Your task to perform on an android device: clear all cookies in the chrome app Image 0: 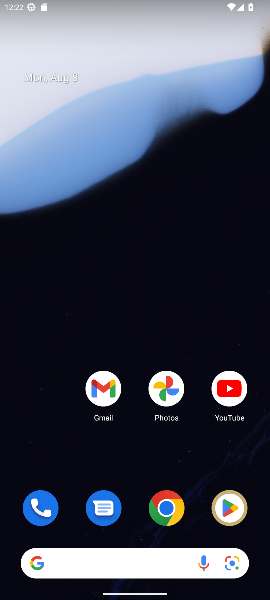
Step 0: click (180, 507)
Your task to perform on an android device: clear all cookies in the chrome app Image 1: 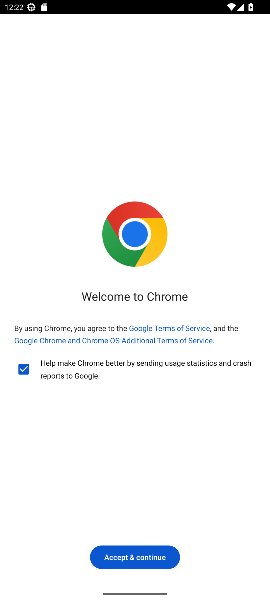
Step 1: click (153, 553)
Your task to perform on an android device: clear all cookies in the chrome app Image 2: 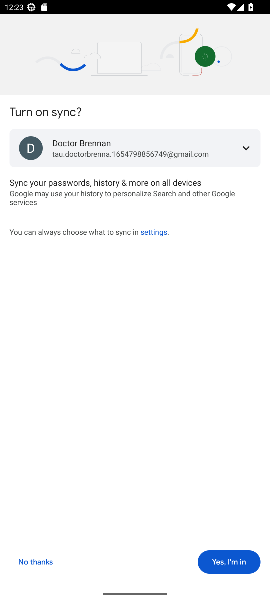
Step 2: click (238, 563)
Your task to perform on an android device: clear all cookies in the chrome app Image 3: 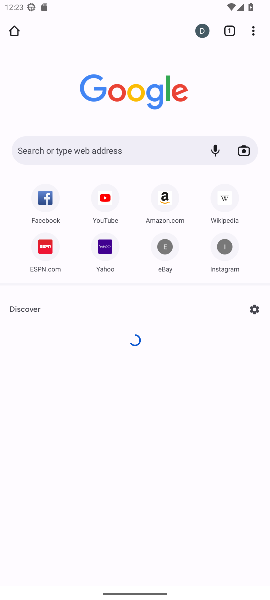
Step 3: click (256, 34)
Your task to perform on an android device: clear all cookies in the chrome app Image 4: 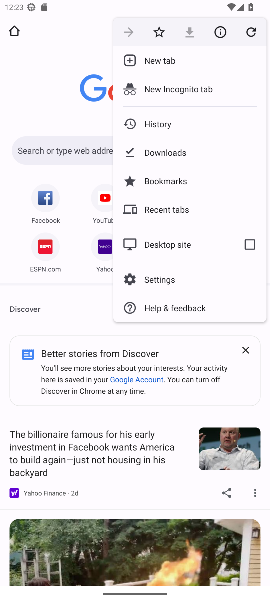
Step 4: click (159, 117)
Your task to perform on an android device: clear all cookies in the chrome app Image 5: 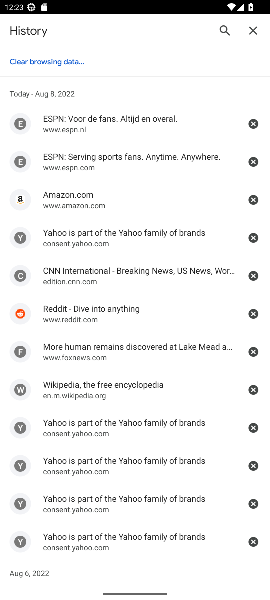
Step 5: click (60, 62)
Your task to perform on an android device: clear all cookies in the chrome app Image 6: 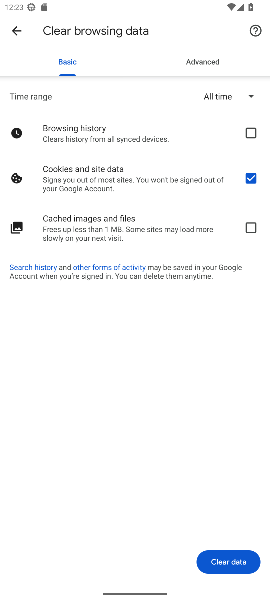
Step 6: click (247, 561)
Your task to perform on an android device: clear all cookies in the chrome app Image 7: 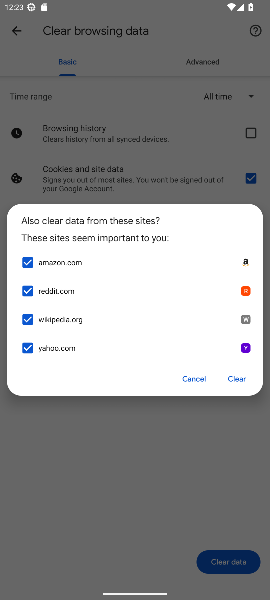
Step 7: click (230, 381)
Your task to perform on an android device: clear all cookies in the chrome app Image 8: 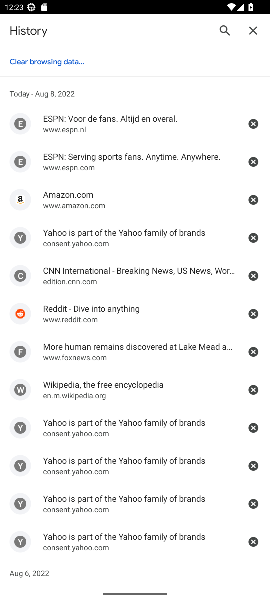
Step 8: task complete